Your task to perform on an android device: toggle improve location accuracy Image 0: 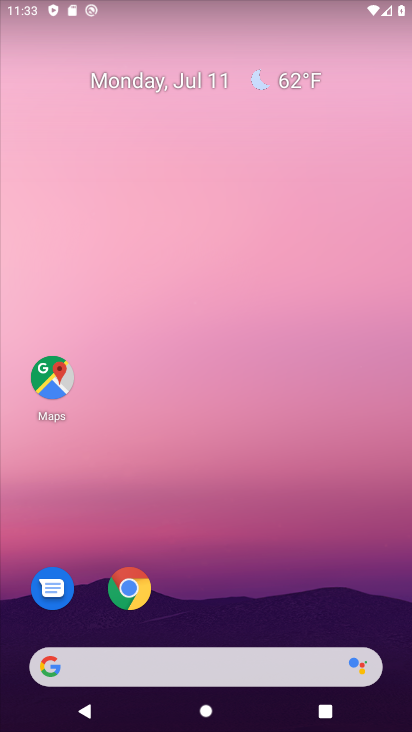
Step 0: click (190, 37)
Your task to perform on an android device: toggle improve location accuracy Image 1: 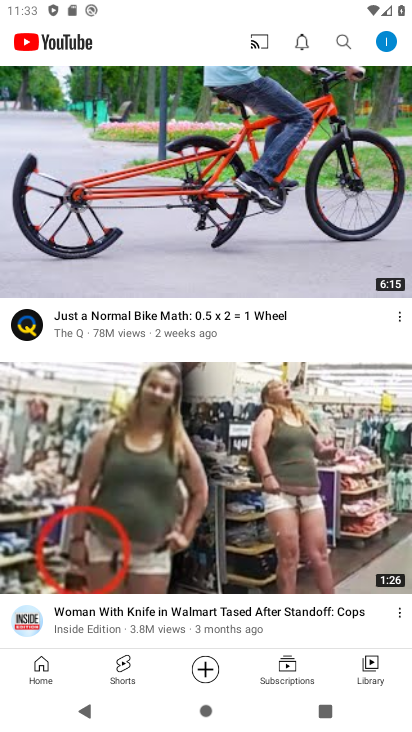
Step 1: press home button
Your task to perform on an android device: toggle improve location accuracy Image 2: 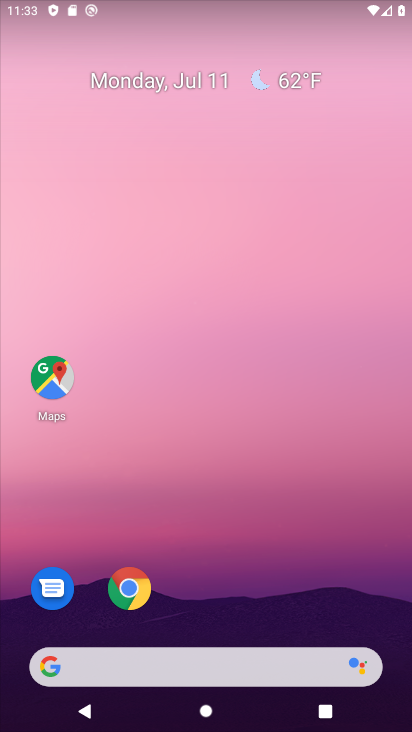
Step 2: drag from (204, 8) to (188, 155)
Your task to perform on an android device: toggle improve location accuracy Image 3: 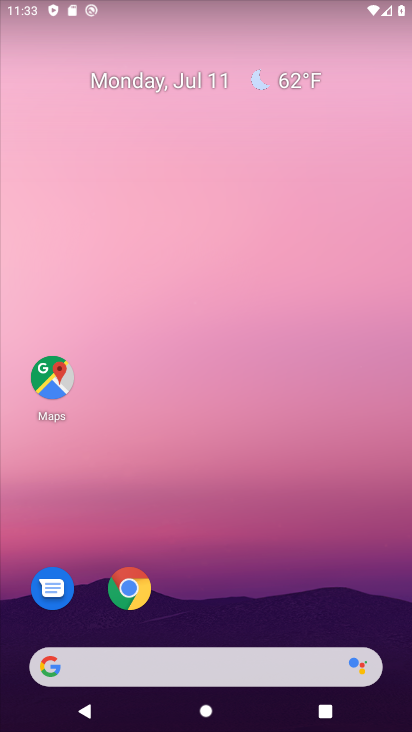
Step 3: click (189, 257)
Your task to perform on an android device: toggle improve location accuracy Image 4: 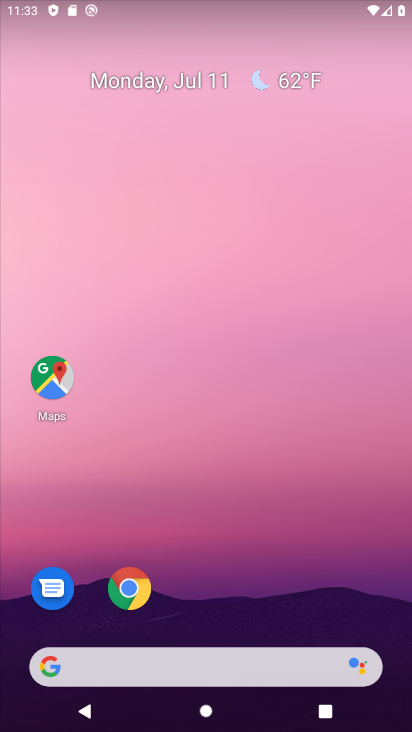
Step 4: drag from (176, 443) to (174, 139)
Your task to perform on an android device: toggle improve location accuracy Image 5: 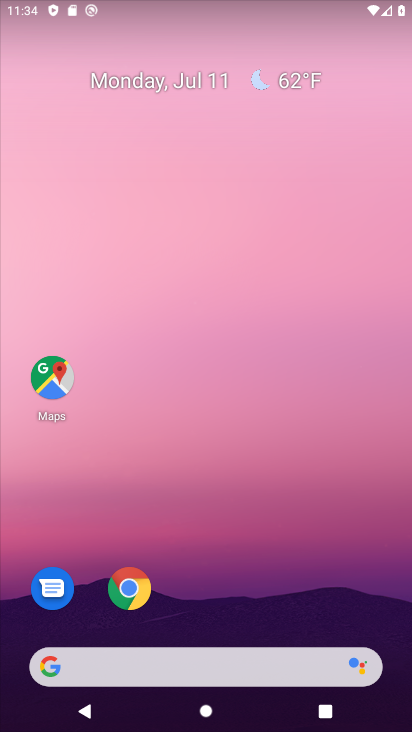
Step 5: drag from (206, 635) to (208, 73)
Your task to perform on an android device: toggle improve location accuracy Image 6: 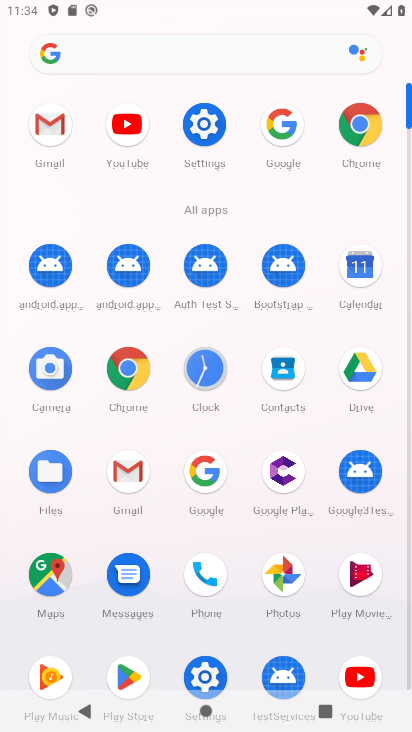
Step 6: click (200, 125)
Your task to perform on an android device: toggle improve location accuracy Image 7: 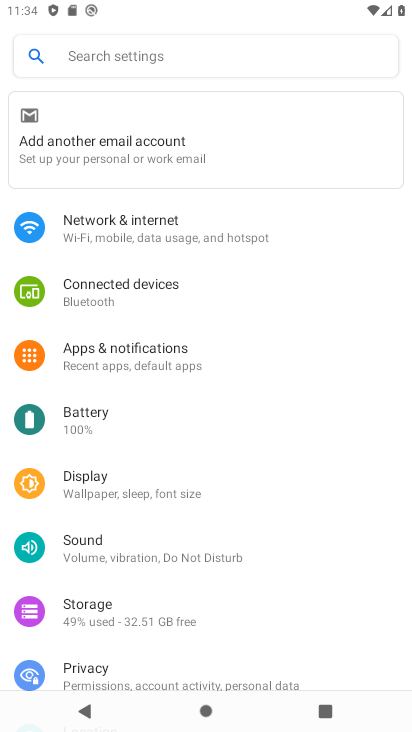
Step 7: drag from (135, 603) to (150, 188)
Your task to perform on an android device: toggle improve location accuracy Image 8: 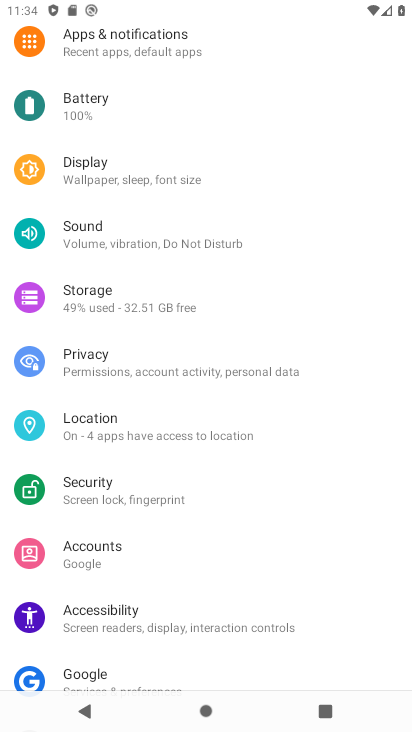
Step 8: click (96, 414)
Your task to perform on an android device: toggle improve location accuracy Image 9: 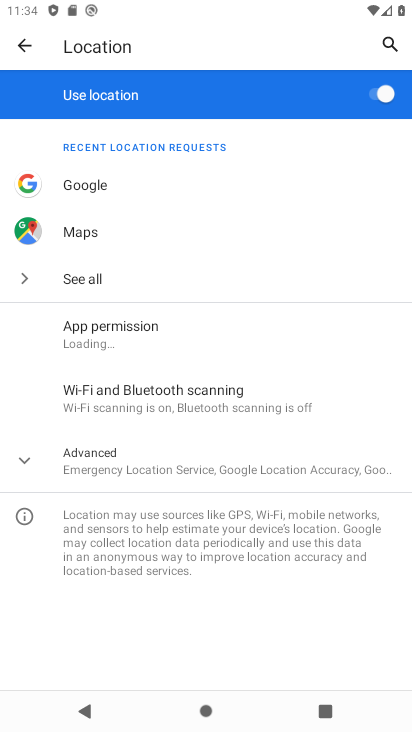
Step 9: click (119, 451)
Your task to perform on an android device: toggle improve location accuracy Image 10: 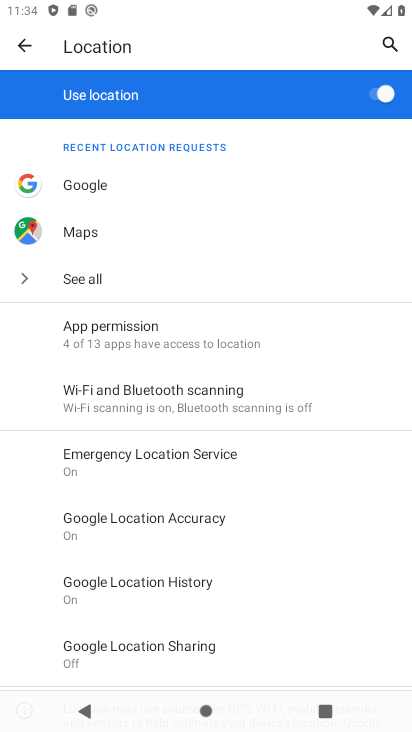
Step 10: click (154, 516)
Your task to perform on an android device: toggle improve location accuracy Image 11: 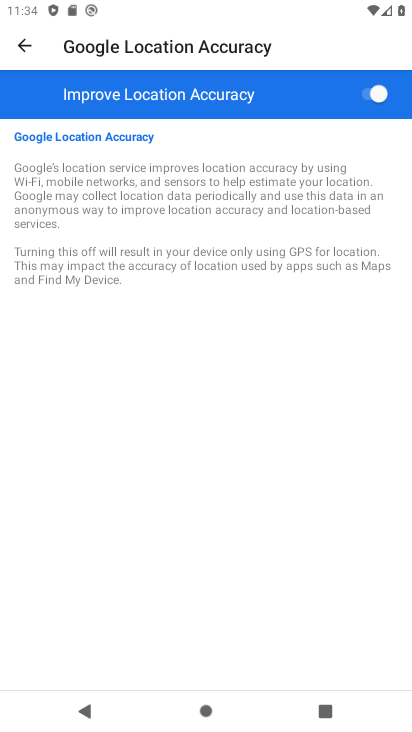
Step 11: click (356, 99)
Your task to perform on an android device: toggle improve location accuracy Image 12: 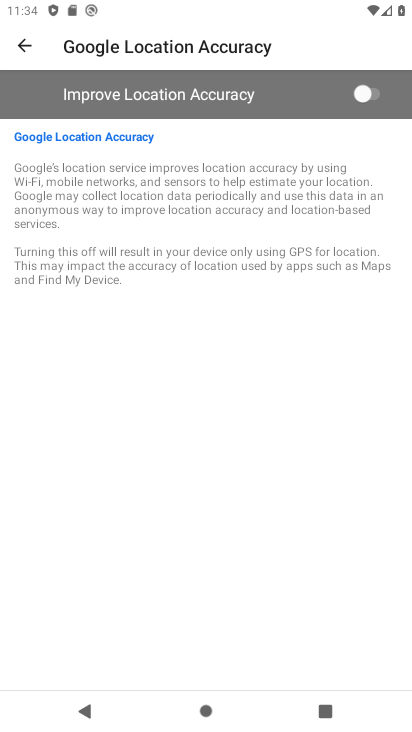
Step 12: task complete